Your task to perform on an android device: turn smart compose on in the gmail app Image 0: 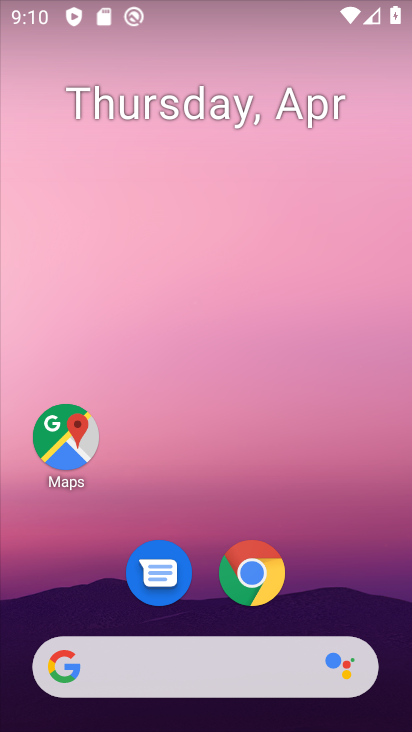
Step 0: click (270, 578)
Your task to perform on an android device: turn smart compose on in the gmail app Image 1: 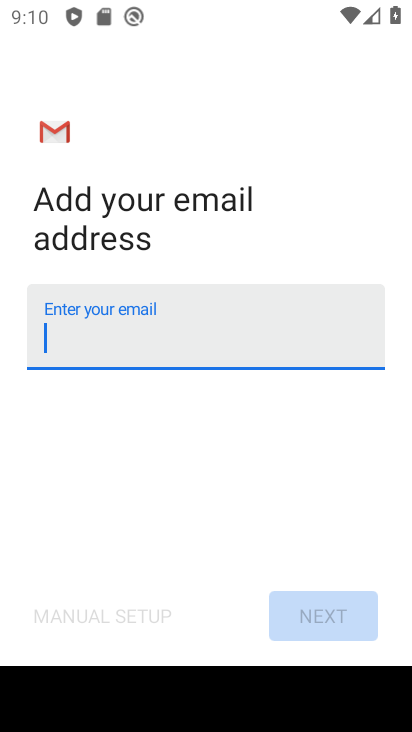
Step 1: press back button
Your task to perform on an android device: turn smart compose on in the gmail app Image 2: 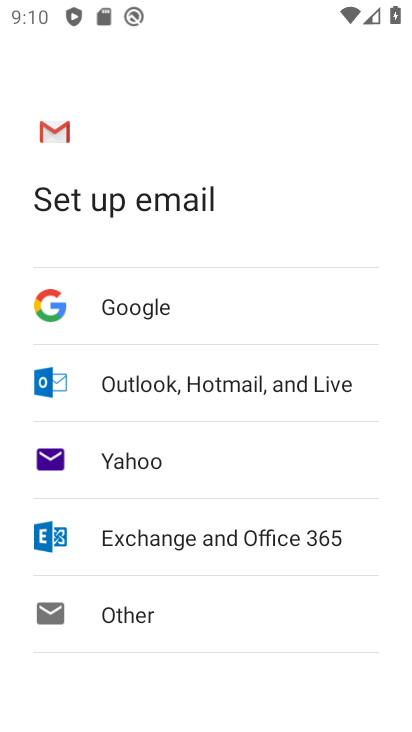
Step 2: press back button
Your task to perform on an android device: turn smart compose on in the gmail app Image 3: 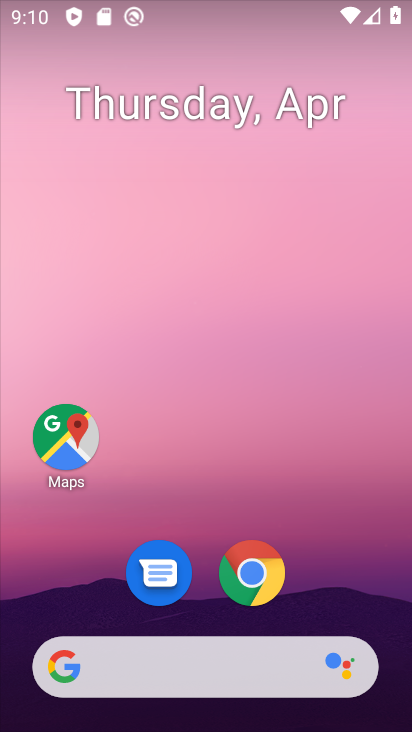
Step 3: click (274, 592)
Your task to perform on an android device: turn smart compose on in the gmail app Image 4: 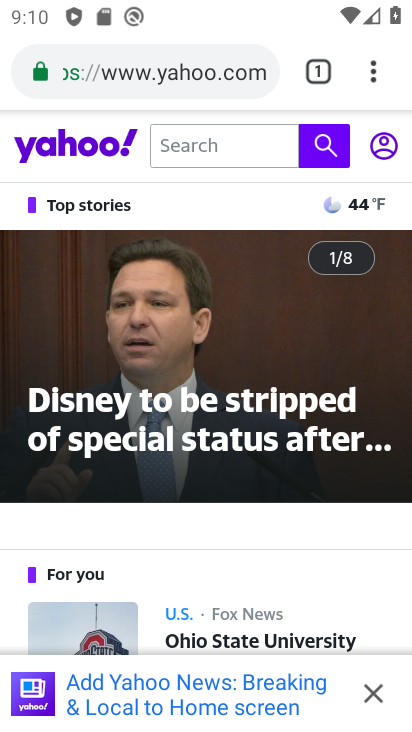
Step 4: press home button
Your task to perform on an android device: turn smart compose on in the gmail app Image 5: 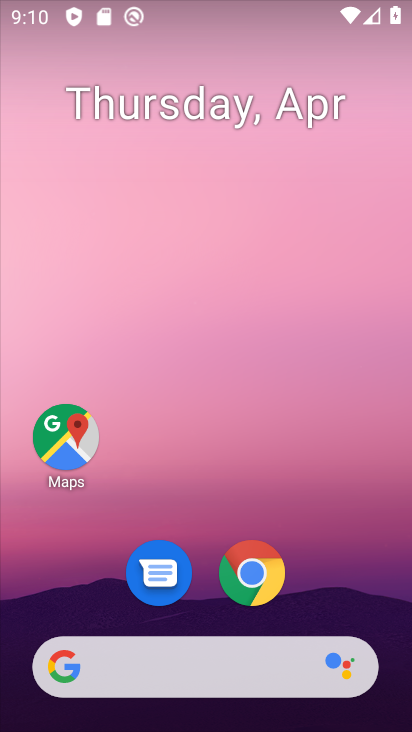
Step 5: drag from (282, 438) to (259, 205)
Your task to perform on an android device: turn smart compose on in the gmail app Image 6: 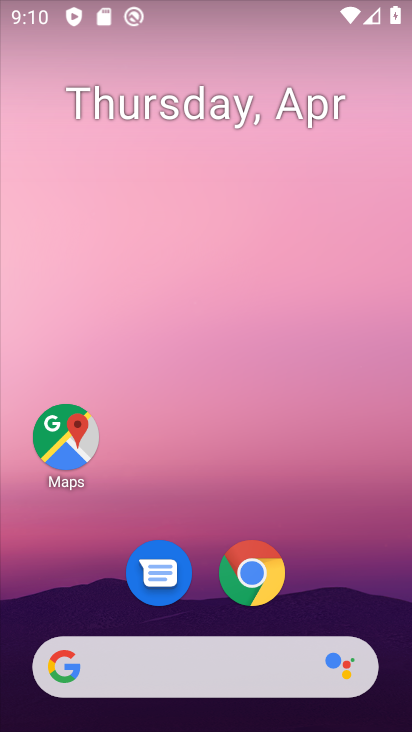
Step 6: click (257, 588)
Your task to perform on an android device: turn smart compose on in the gmail app Image 7: 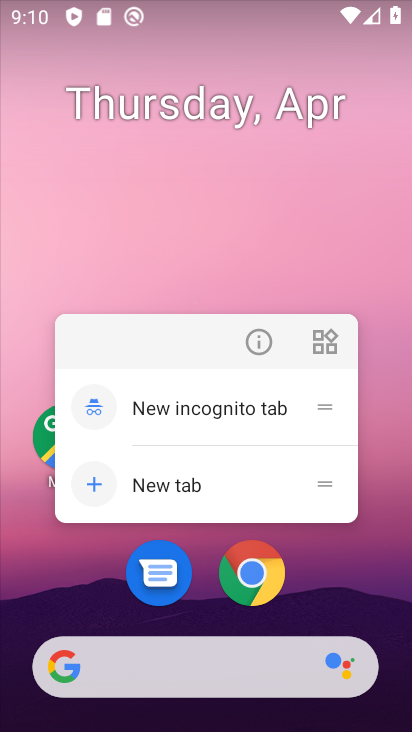
Step 7: click (261, 579)
Your task to perform on an android device: turn smart compose on in the gmail app Image 8: 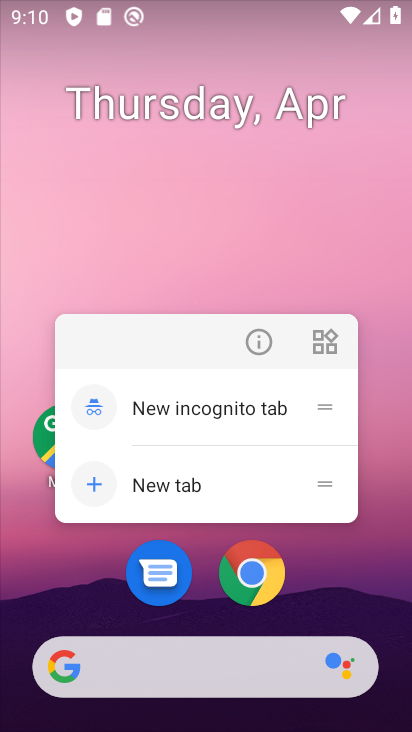
Step 8: click (261, 563)
Your task to perform on an android device: turn smart compose on in the gmail app Image 9: 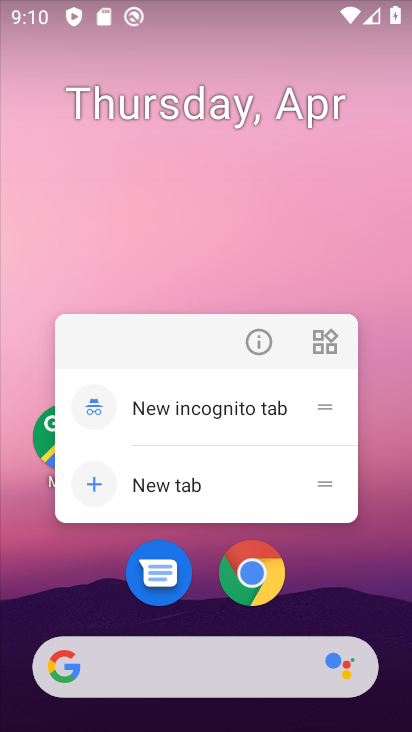
Step 9: click (243, 580)
Your task to perform on an android device: turn smart compose on in the gmail app Image 10: 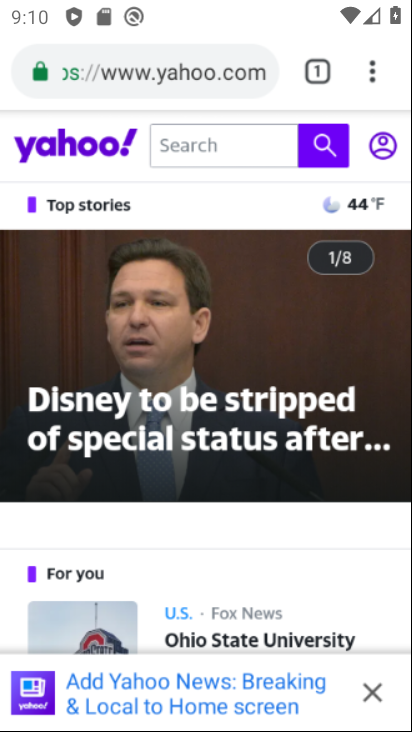
Step 10: click (250, 572)
Your task to perform on an android device: turn smart compose on in the gmail app Image 11: 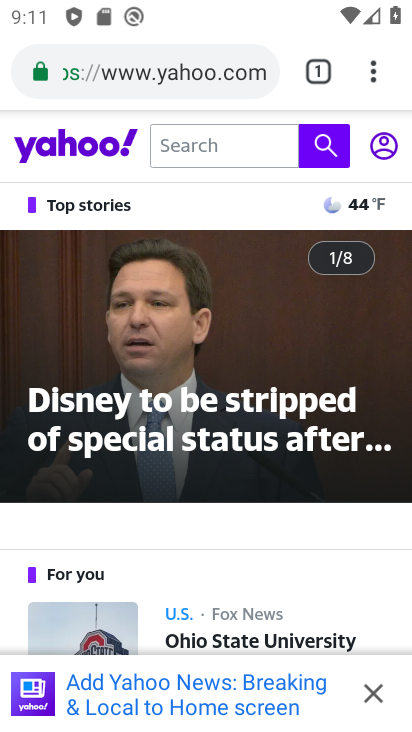
Step 11: click (315, 75)
Your task to perform on an android device: turn smart compose on in the gmail app Image 12: 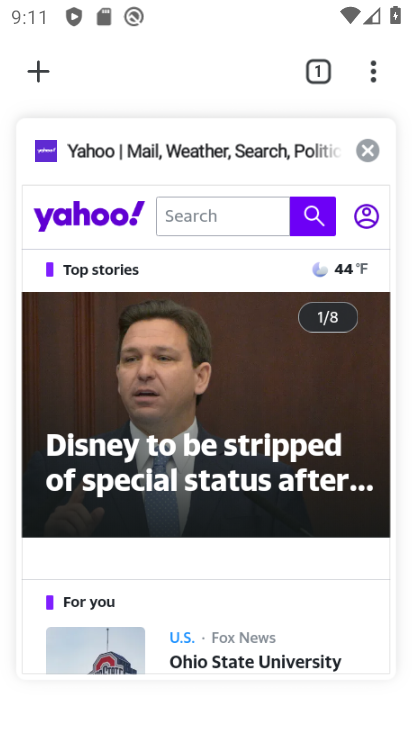
Step 12: click (367, 148)
Your task to perform on an android device: turn smart compose on in the gmail app Image 13: 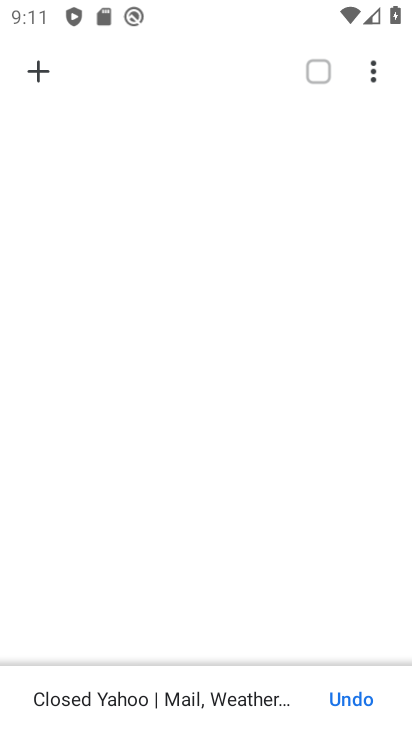
Step 13: click (39, 73)
Your task to perform on an android device: turn smart compose on in the gmail app Image 14: 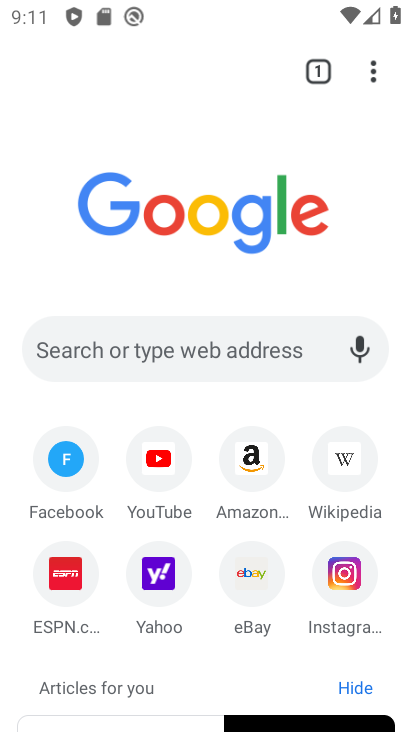
Step 14: press home button
Your task to perform on an android device: turn smart compose on in the gmail app Image 15: 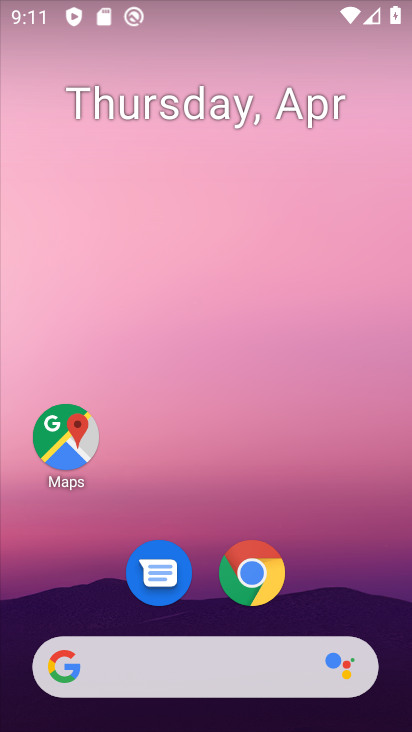
Step 15: drag from (322, 584) to (244, 147)
Your task to perform on an android device: turn smart compose on in the gmail app Image 16: 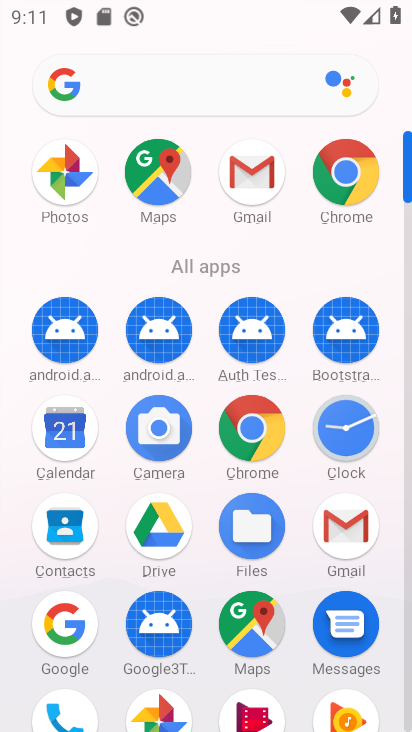
Step 16: click (253, 171)
Your task to perform on an android device: turn smart compose on in the gmail app Image 17: 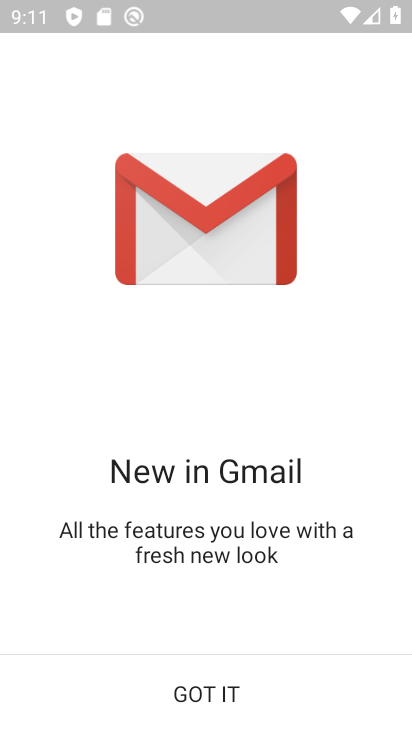
Step 17: click (179, 693)
Your task to perform on an android device: turn smart compose on in the gmail app Image 18: 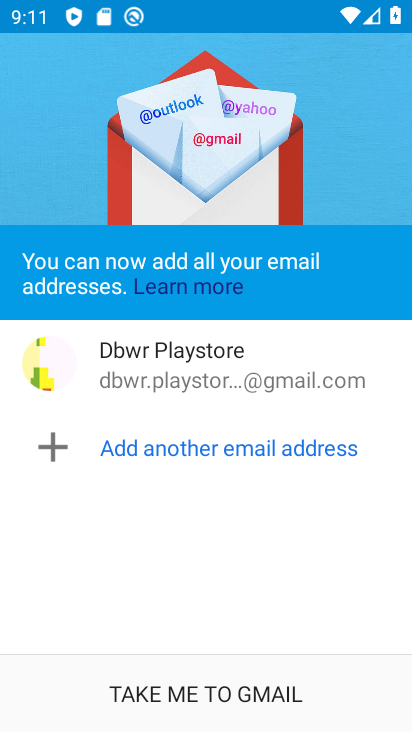
Step 18: click (198, 683)
Your task to perform on an android device: turn smart compose on in the gmail app Image 19: 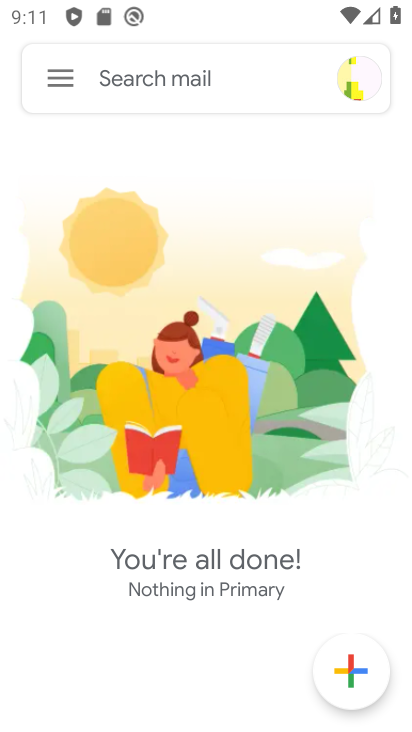
Step 19: click (69, 86)
Your task to perform on an android device: turn smart compose on in the gmail app Image 20: 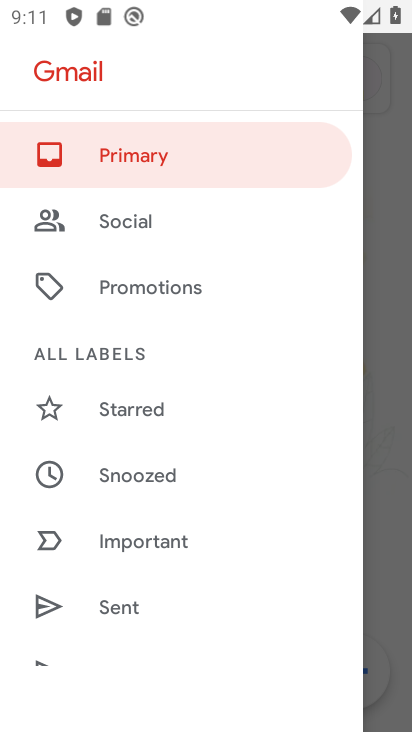
Step 20: drag from (111, 655) to (268, 234)
Your task to perform on an android device: turn smart compose on in the gmail app Image 21: 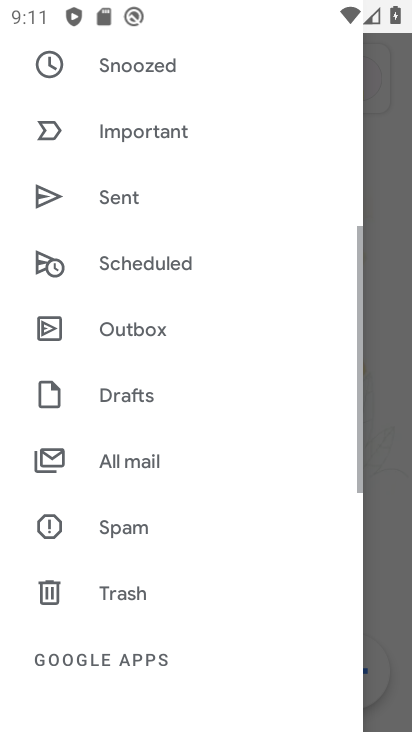
Step 21: drag from (169, 500) to (143, 228)
Your task to perform on an android device: turn smart compose on in the gmail app Image 22: 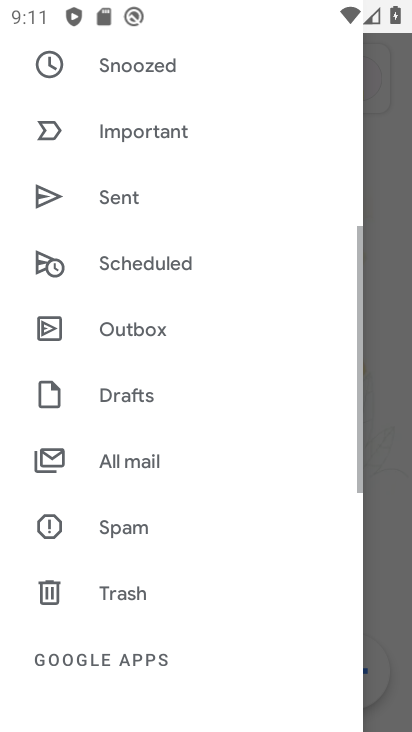
Step 22: drag from (195, 531) to (185, 273)
Your task to perform on an android device: turn smart compose on in the gmail app Image 23: 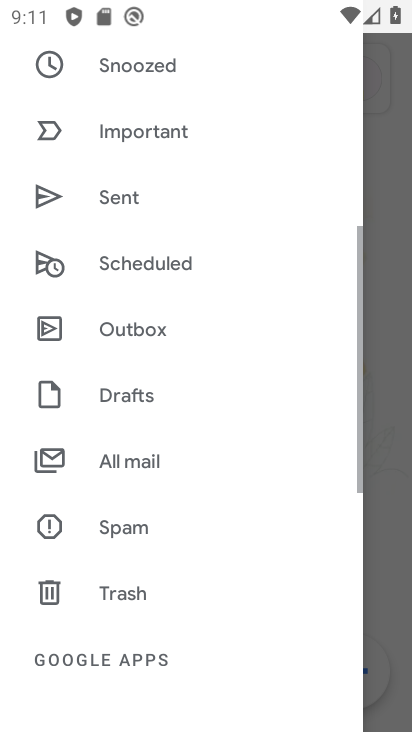
Step 23: drag from (157, 591) to (189, 252)
Your task to perform on an android device: turn smart compose on in the gmail app Image 24: 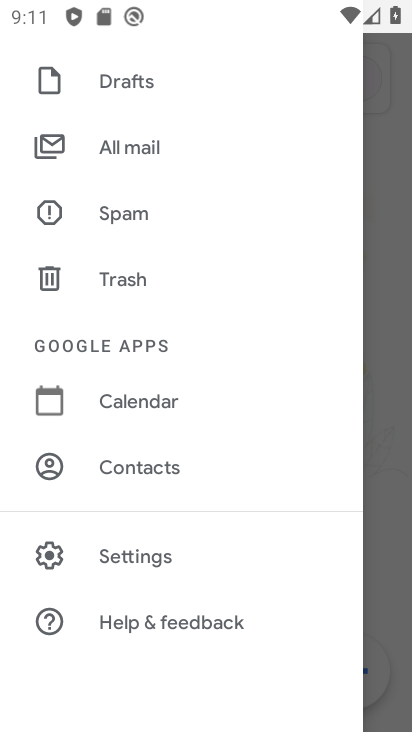
Step 24: click (125, 564)
Your task to perform on an android device: turn smart compose on in the gmail app Image 25: 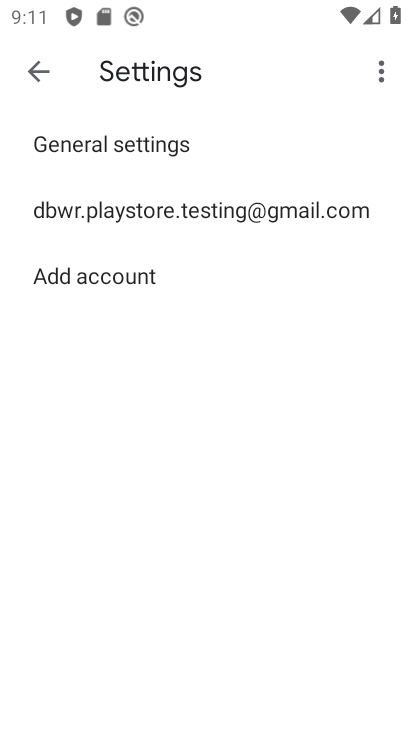
Step 25: click (217, 208)
Your task to perform on an android device: turn smart compose on in the gmail app Image 26: 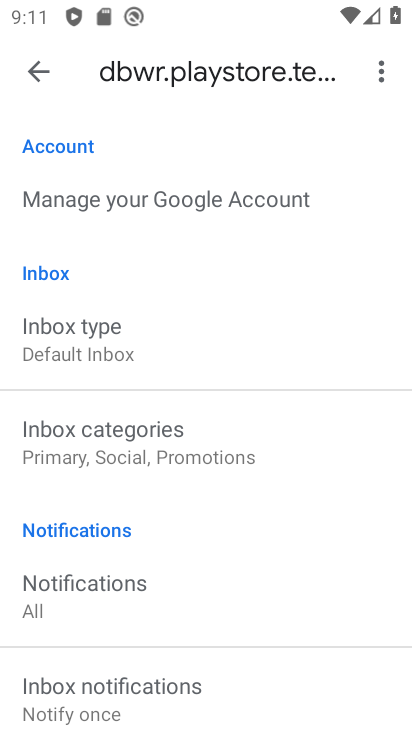
Step 26: task complete